Your task to perform on an android device: What's the price of the Galaxy phone on eBay? Image 0: 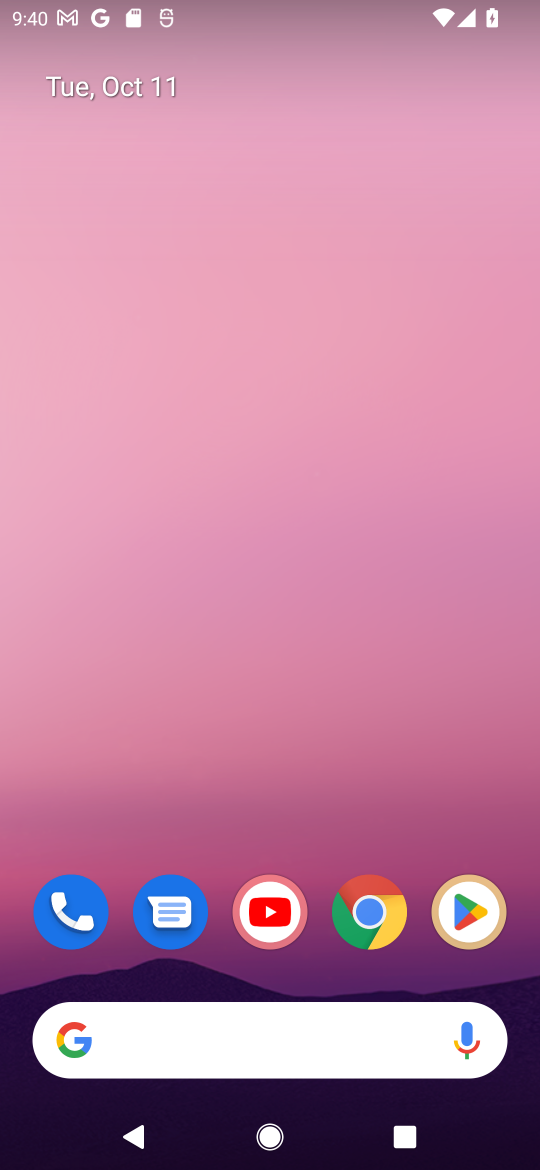
Step 0: click (366, 907)
Your task to perform on an android device: What's the price of the Galaxy phone on eBay? Image 1: 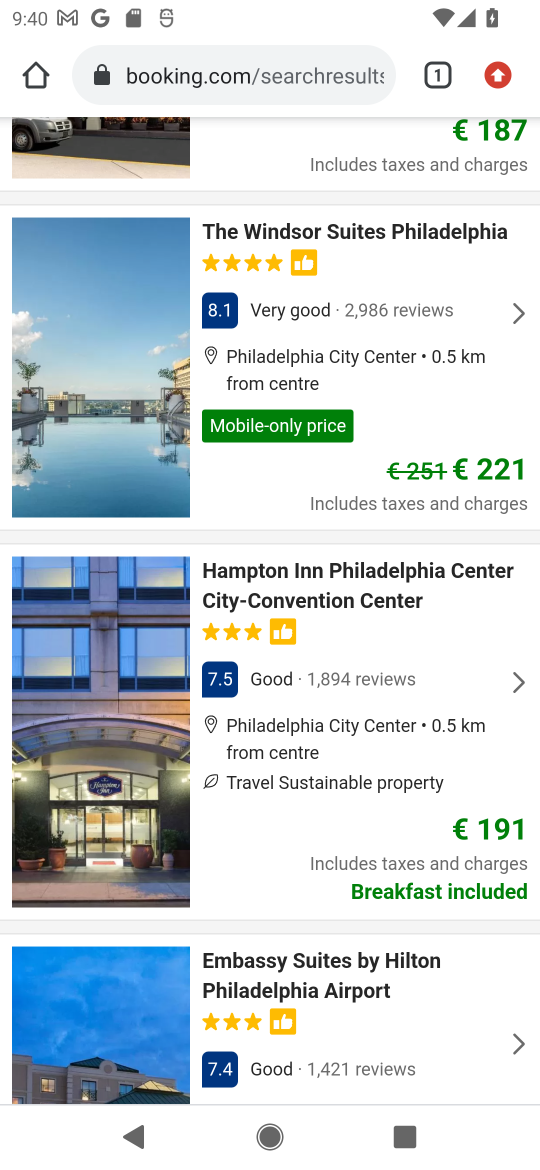
Step 1: click (223, 55)
Your task to perform on an android device: What's the price of the Galaxy phone on eBay? Image 2: 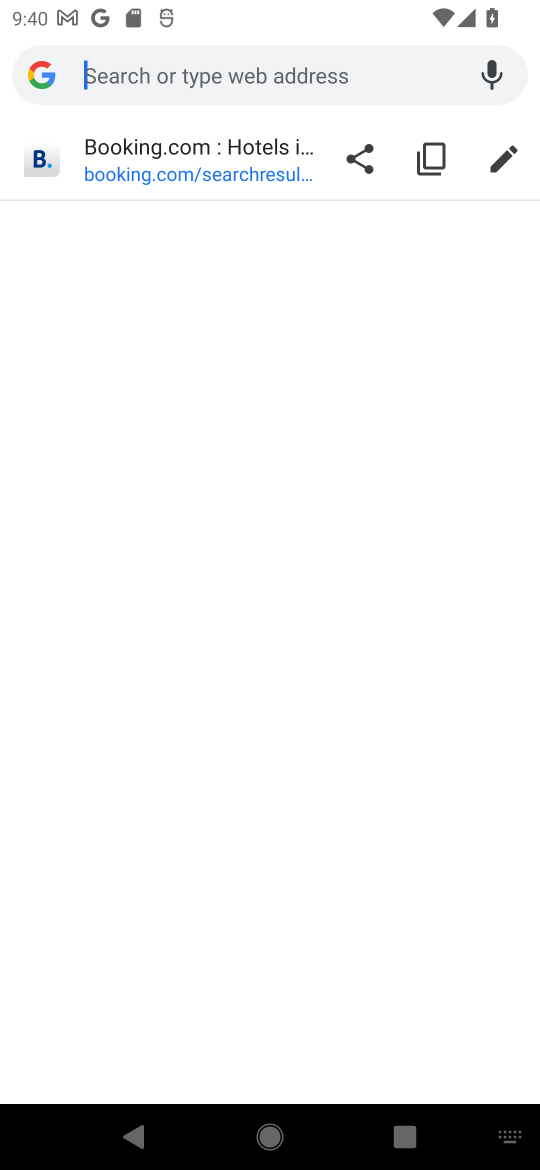
Step 2: type "ebay"
Your task to perform on an android device: What's the price of the Galaxy phone on eBay? Image 3: 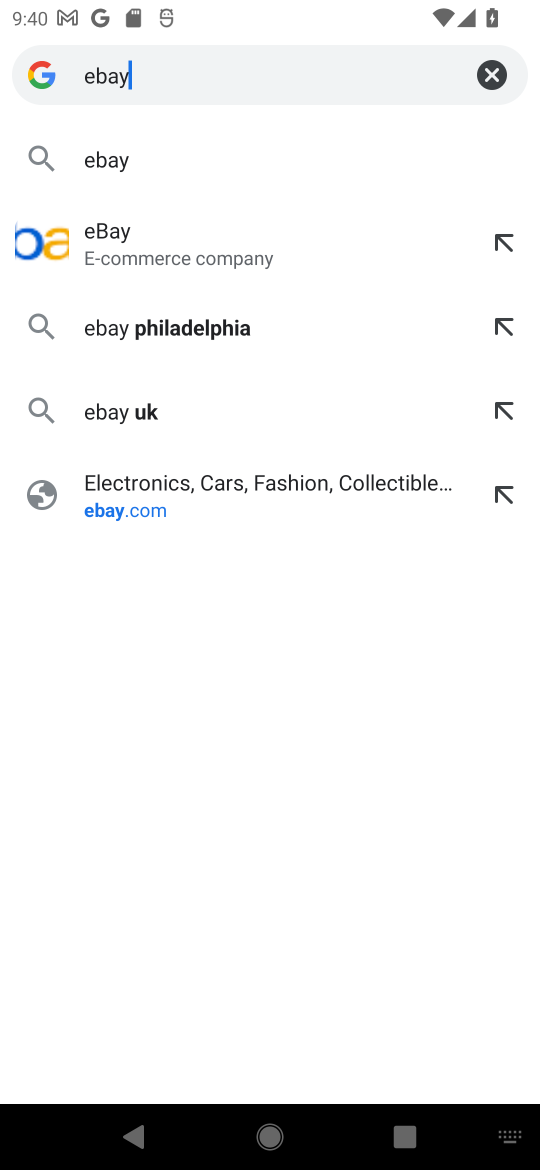
Step 3: click (196, 248)
Your task to perform on an android device: What's the price of the Galaxy phone on eBay? Image 4: 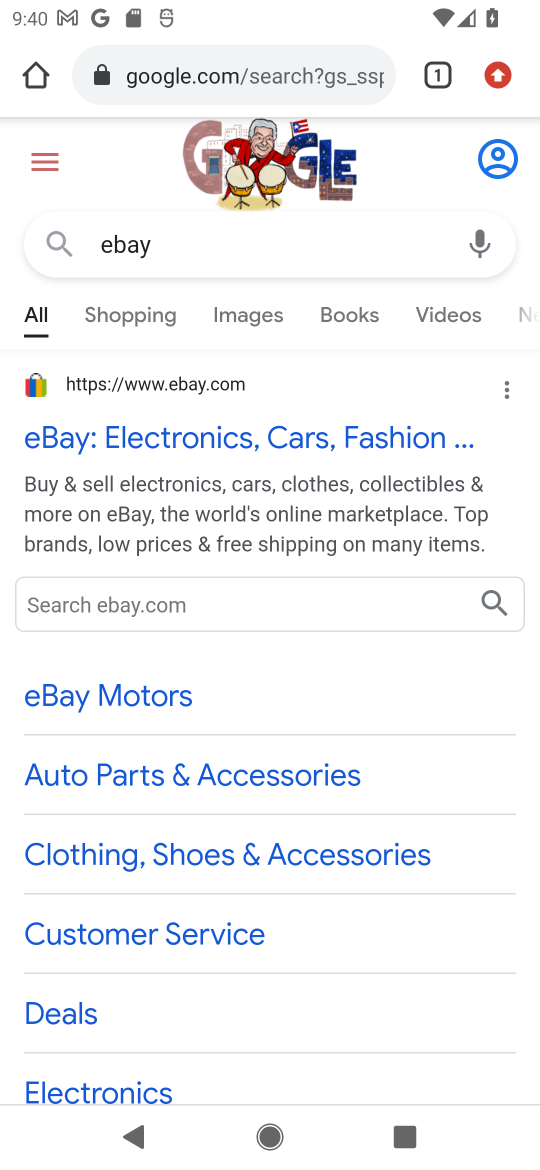
Step 4: click (124, 434)
Your task to perform on an android device: What's the price of the Galaxy phone on eBay? Image 5: 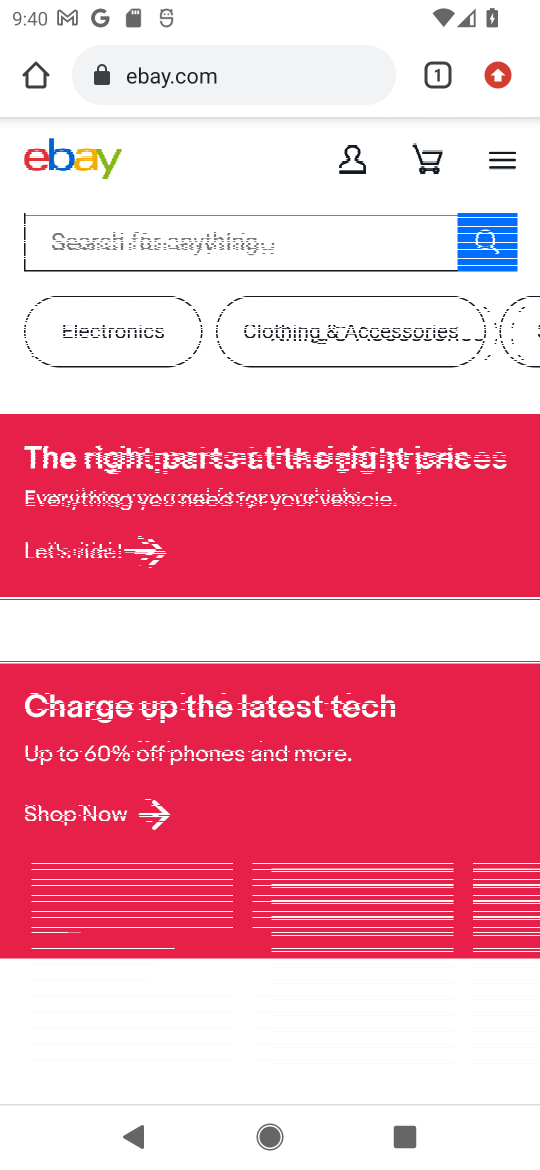
Step 5: click (183, 230)
Your task to perform on an android device: What's the price of the Galaxy phone on eBay? Image 6: 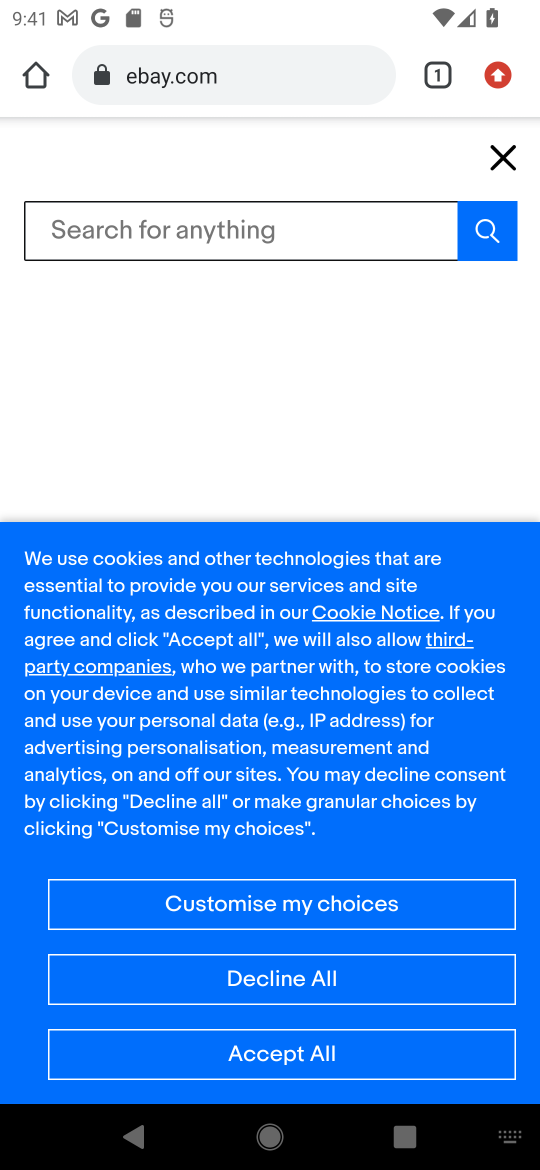
Step 6: type "galaxy phone"
Your task to perform on an android device: What's the price of the Galaxy phone on eBay? Image 7: 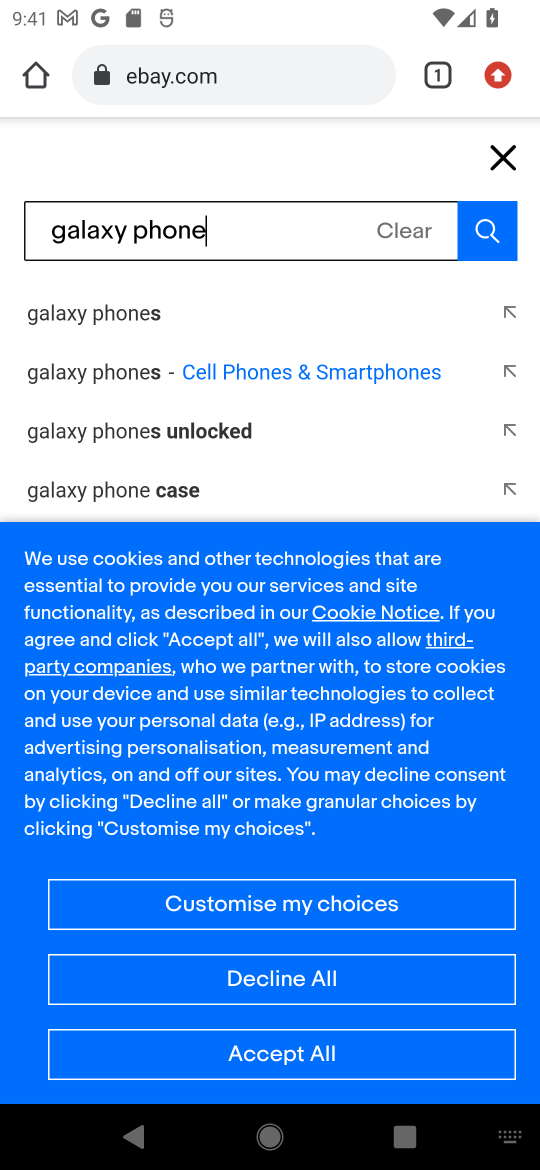
Step 7: click (472, 230)
Your task to perform on an android device: What's the price of the Galaxy phone on eBay? Image 8: 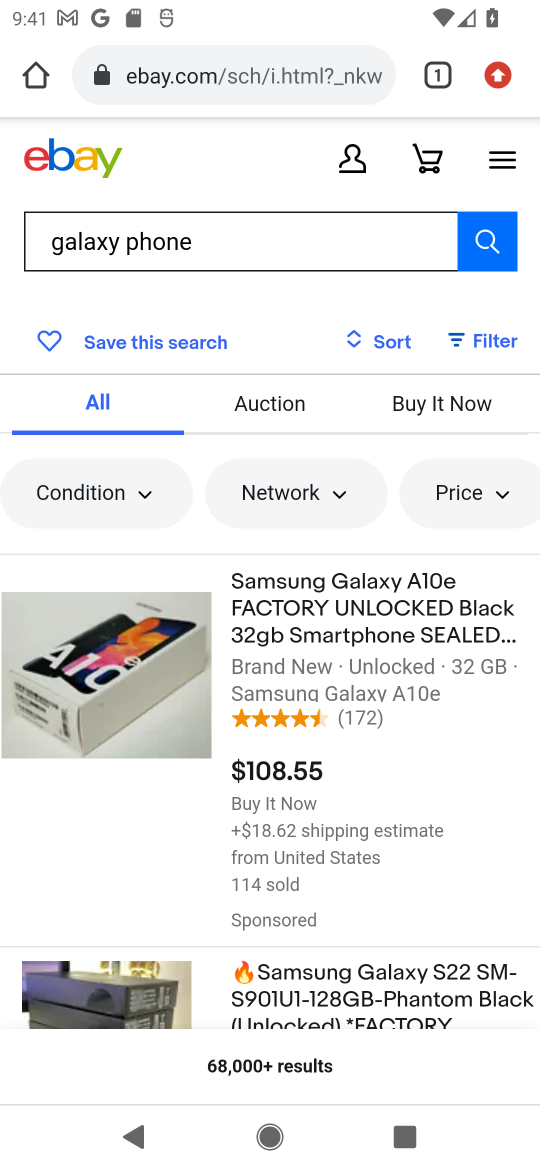
Step 8: task complete